Your task to perform on an android device: toggle javascript in the chrome app Image 0: 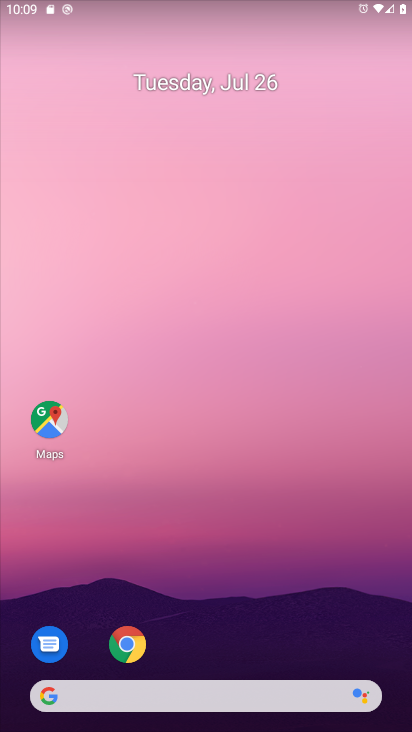
Step 0: drag from (211, 638) to (236, 127)
Your task to perform on an android device: toggle javascript in the chrome app Image 1: 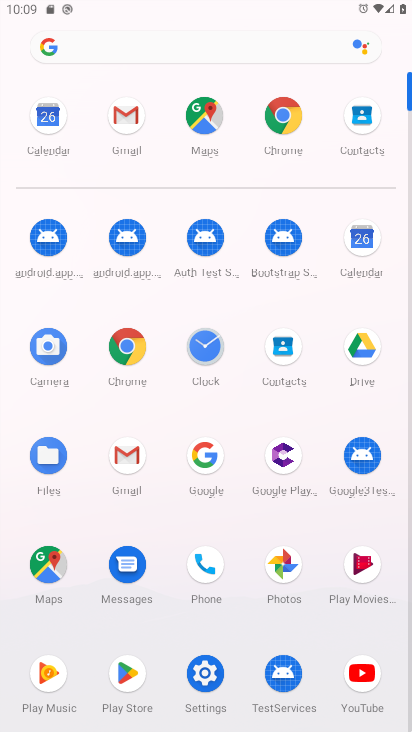
Step 1: click (129, 371)
Your task to perform on an android device: toggle javascript in the chrome app Image 2: 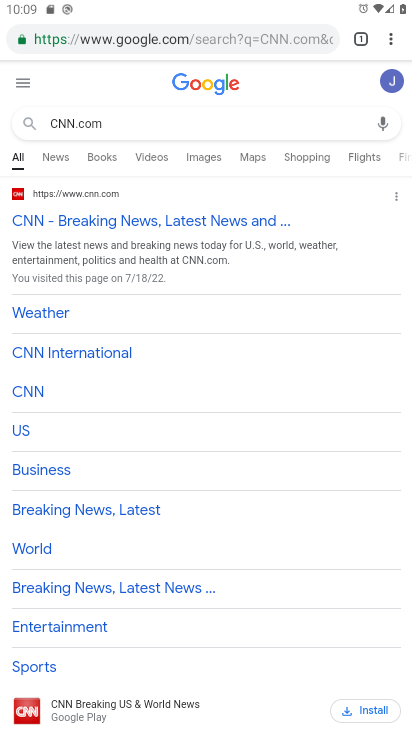
Step 2: click (387, 33)
Your task to perform on an android device: toggle javascript in the chrome app Image 3: 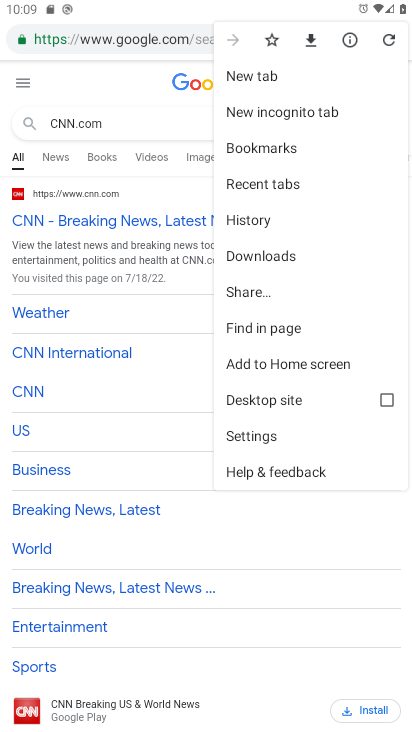
Step 3: click (259, 440)
Your task to perform on an android device: toggle javascript in the chrome app Image 4: 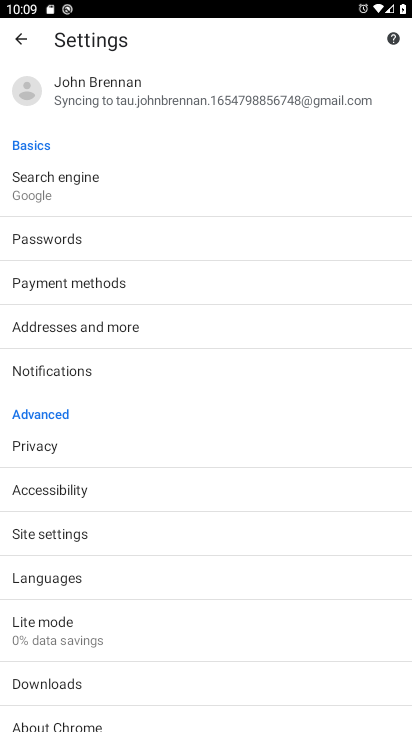
Step 4: click (64, 579)
Your task to perform on an android device: toggle javascript in the chrome app Image 5: 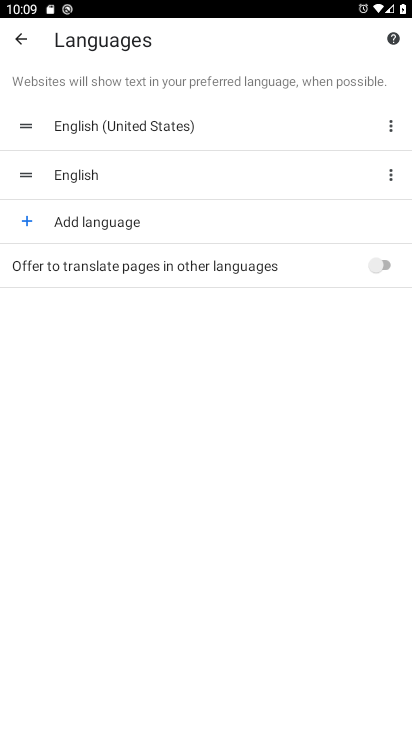
Step 5: click (392, 272)
Your task to perform on an android device: toggle javascript in the chrome app Image 6: 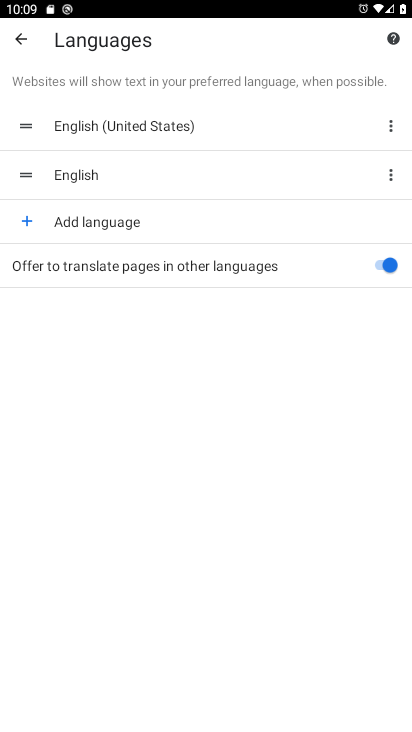
Step 6: task complete